Your task to perform on an android device: Go to battery settings Image 0: 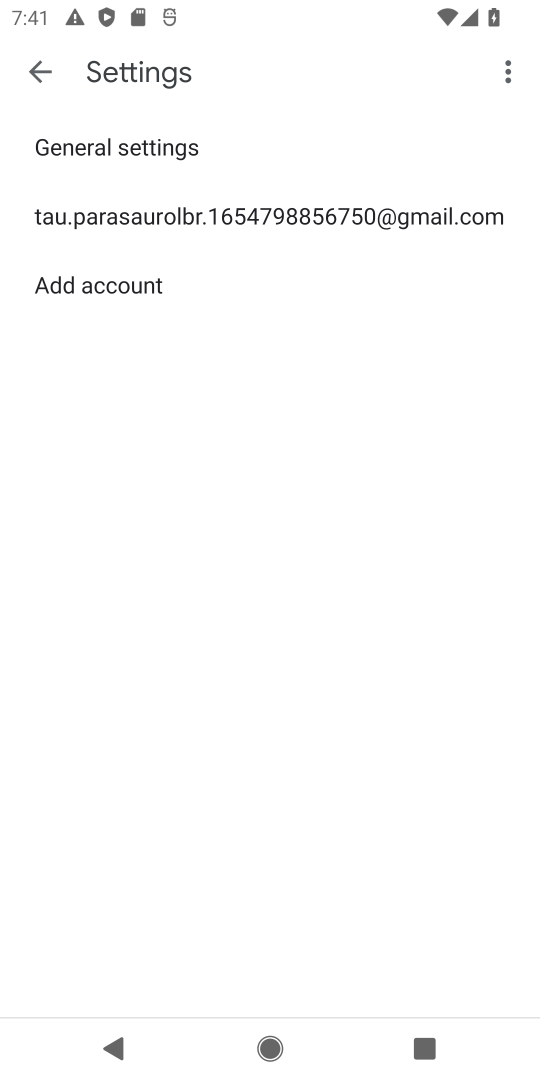
Step 0: press home button
Your task to perform on an android device: Go to battery settings Image 1: 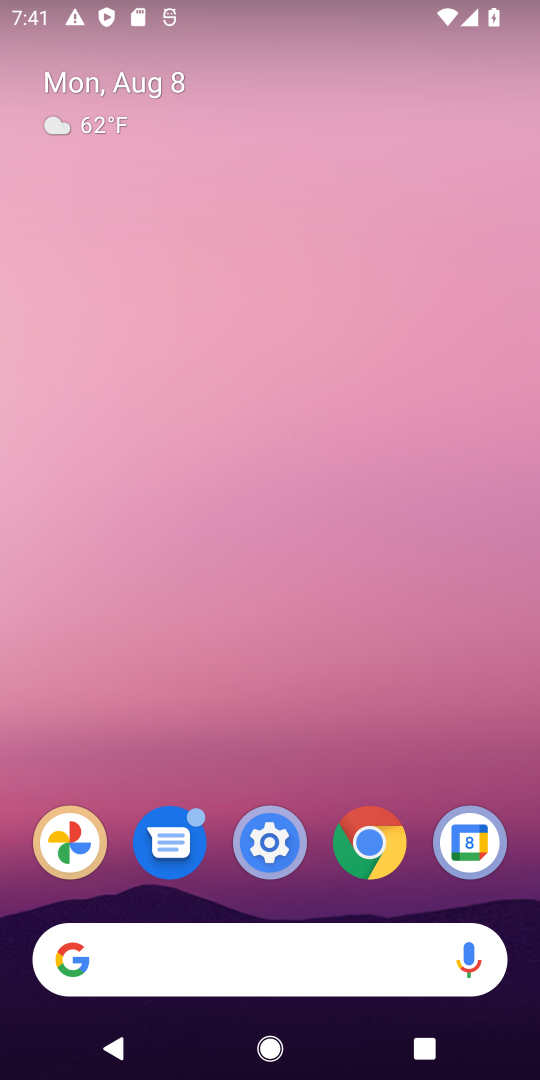
Step 1: click (258, 845)
Your task to perform on an android device: Go to battery settings Image 2: 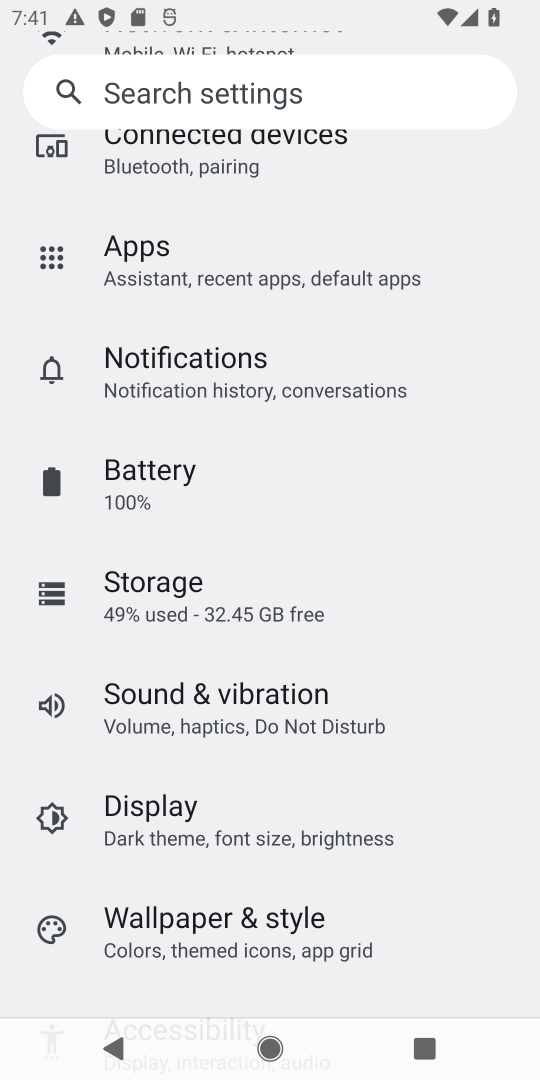
Step 2: click (129, 469)
Your task to perform on an android device: Go to battery settings Image 3: 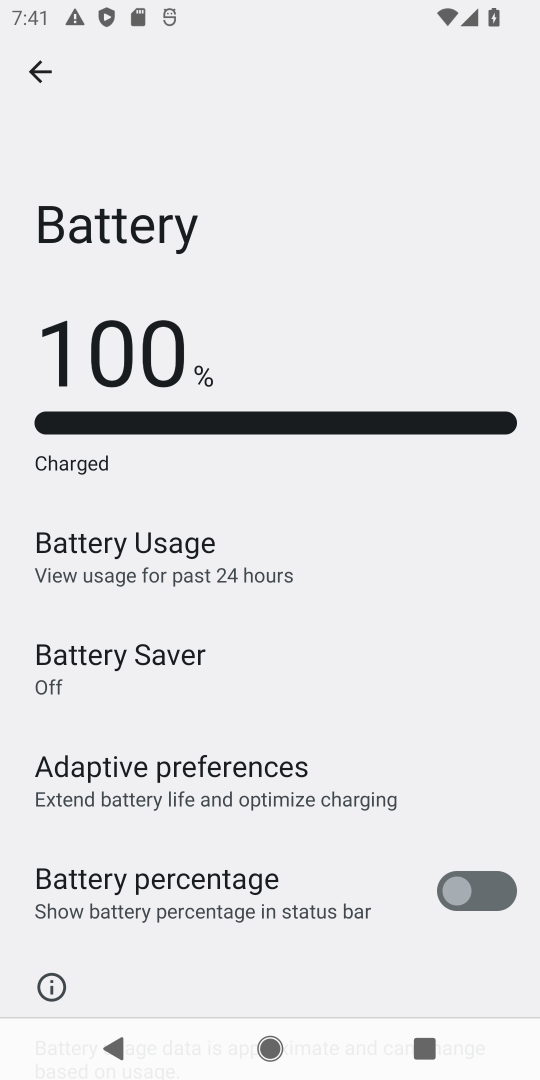
Step 3: click (155, 558)
Your task to perform on an android device: Go to battery settings Image 4: 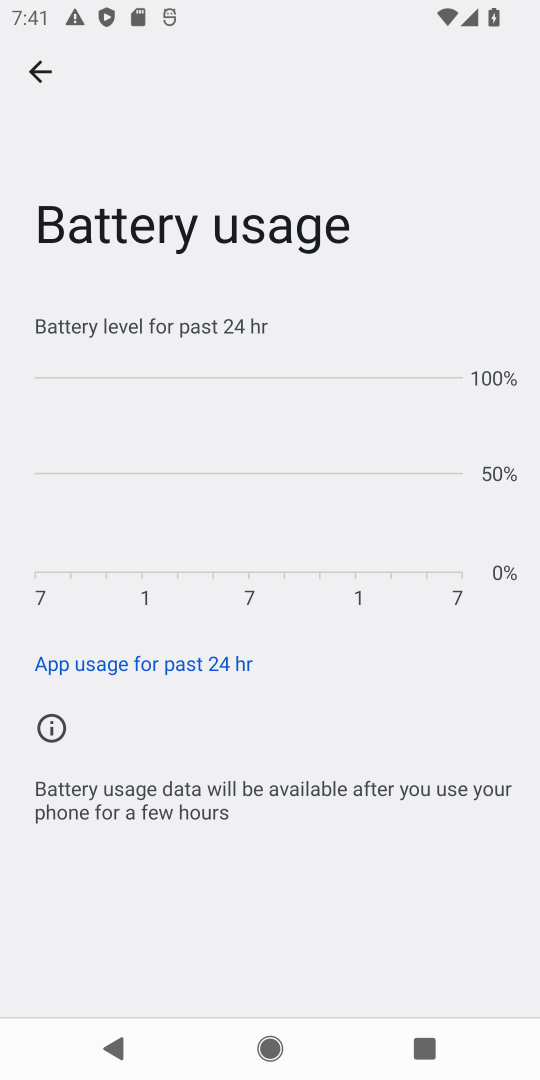
Step 4: task complete